Your task to perform on an android device: toggle sleep mode Image 0: 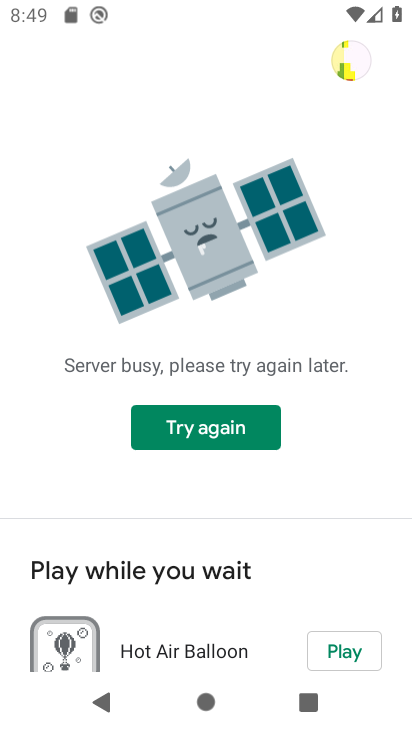
Step 0: press home button
Your task to perform on an android device: toggle sleep mode Image 1: 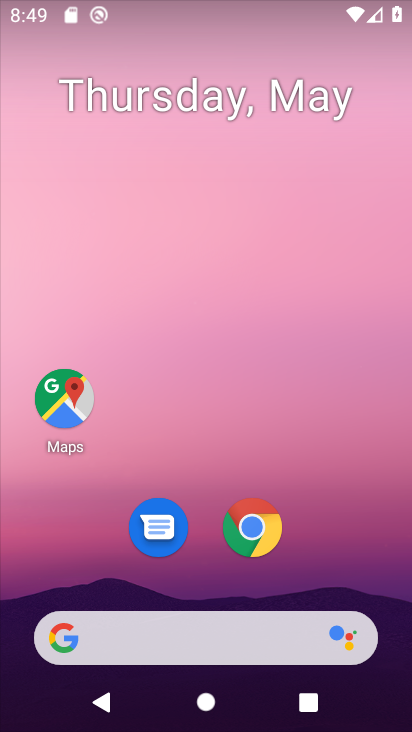
Step 1: task complete